Your task to perform on an android device: Is it going to rain this weekend? Image 0: 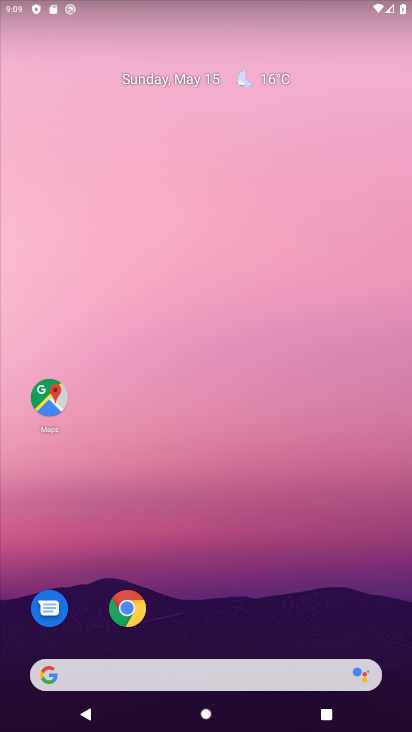
Step 0: click (226, 669)
Your task to perform on an android device: Is it going to rain this weekend? Image 1: 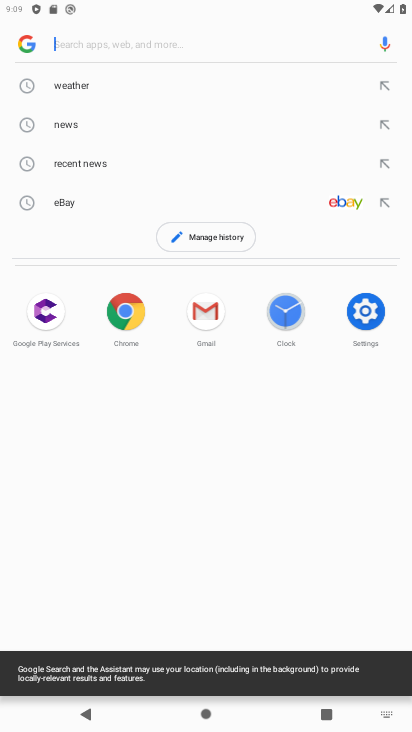
Step 1: click (78, 76)
Your task to perform on an android device: Is it going to rain this weekend? Image 2: 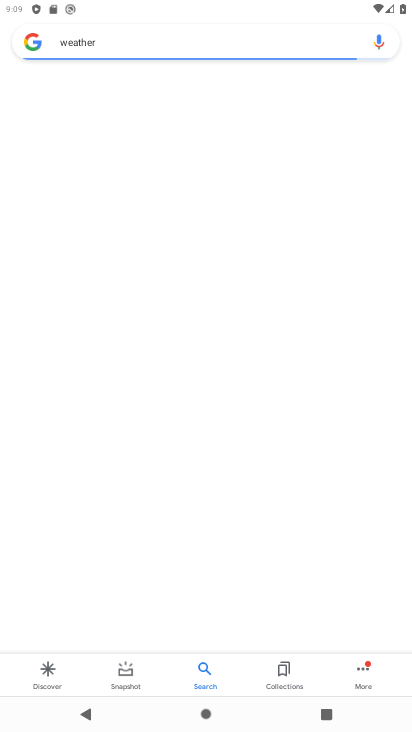
Step 2: task complete